Your task to perform on an android device: turn off location Image 0: 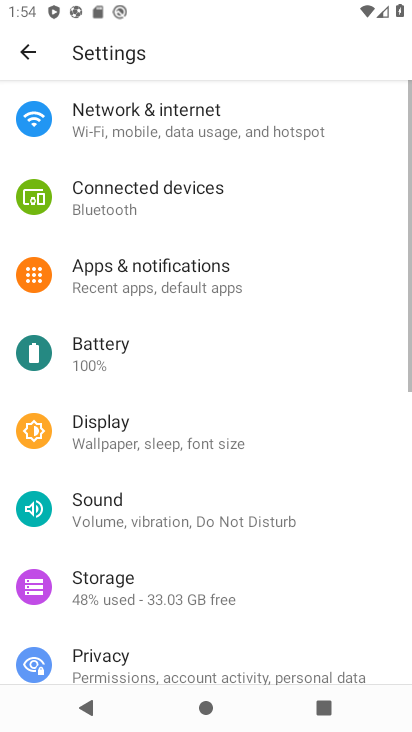
Step 0: press home button
Your task to perform on an android device: turn off location Image 1: 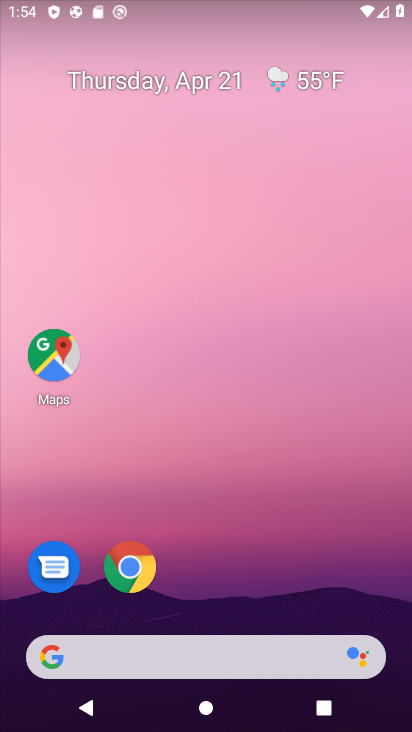
Step 1: drag from (218, 465) to (330, 89)
Your task to perform on an android device: turn off location Image 2: 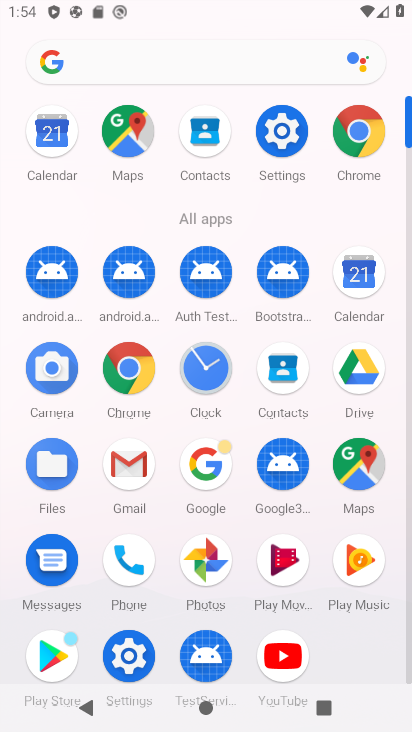
Step 2: click (292, 147)
Your task to perform on an android device: turn off location Image 3: 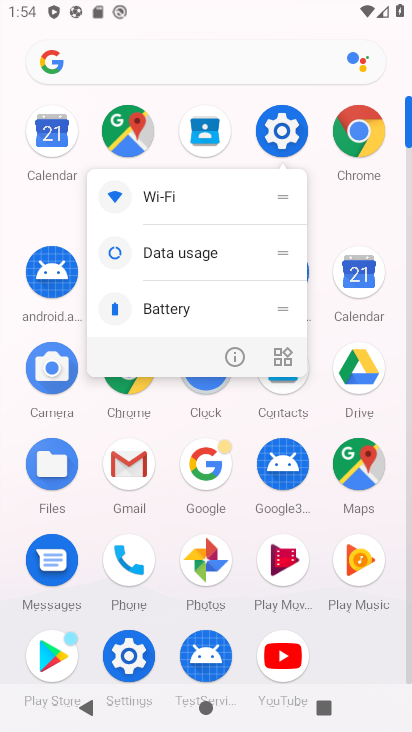
Step 3: click (280, 135)
Your task to perform on an android device: turn off location Image 4: 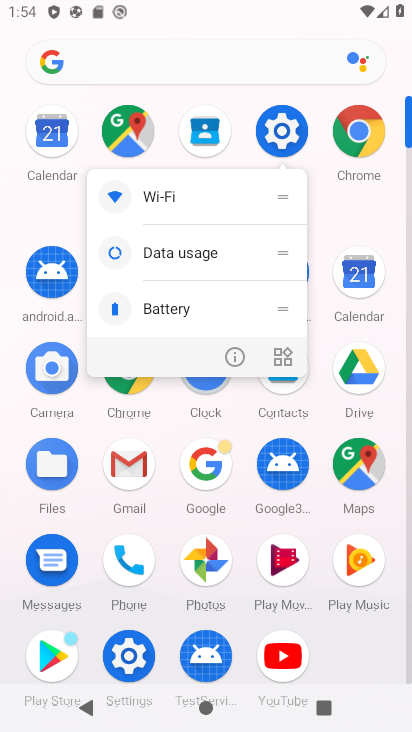
Step 4: click (282, 133)
Your task to perform on an android device: turn off location Image 5: 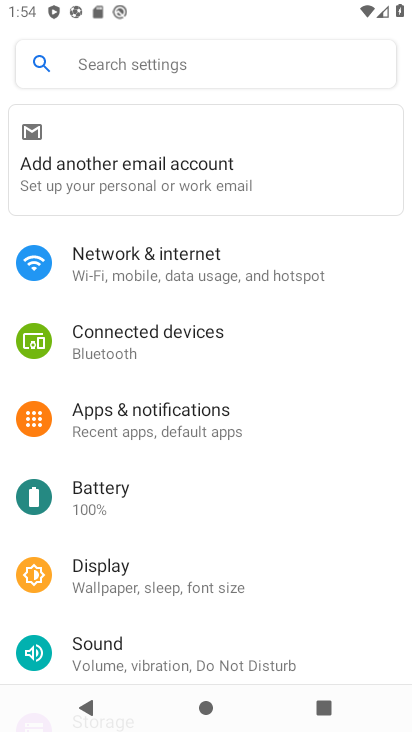
Step 5: drag from (192, 622) to (377, 179)
Your task to perform on an android device: turn off location Image 6: 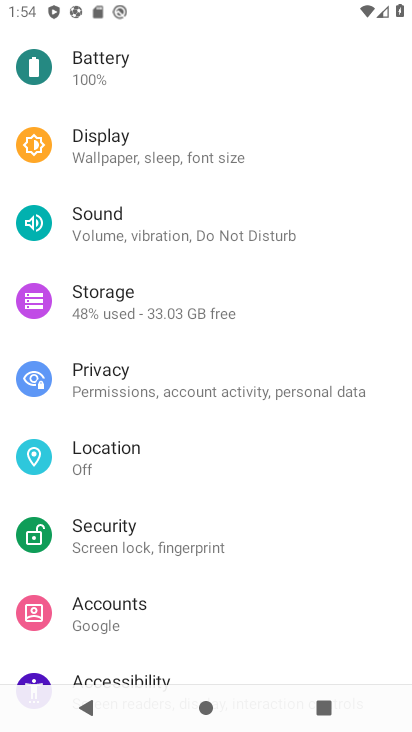
Step 6: click (118, 455)
Your task to perform on an android device: turn off location Image 7: 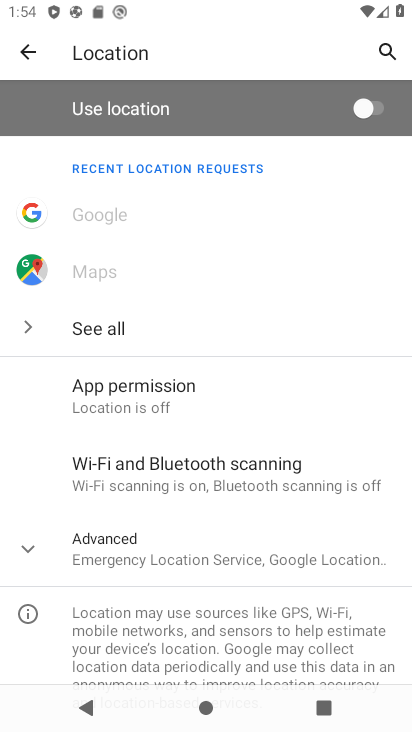
Step 7: task complete